Your task to perform on an android device: check google app version Image 0: 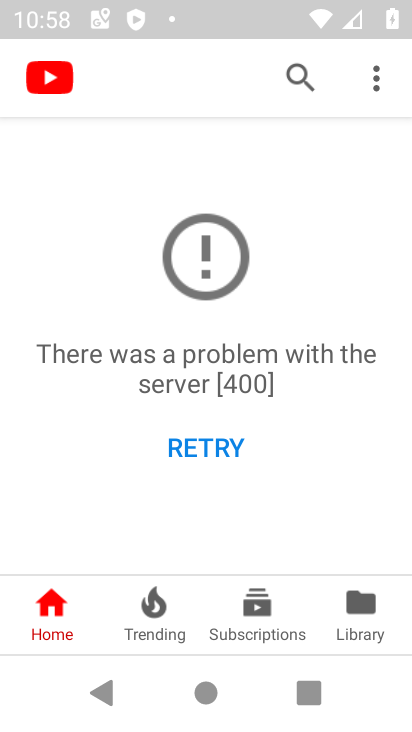
Step 0: press home button
Your task to perform on an android device: check google app version Image 1: 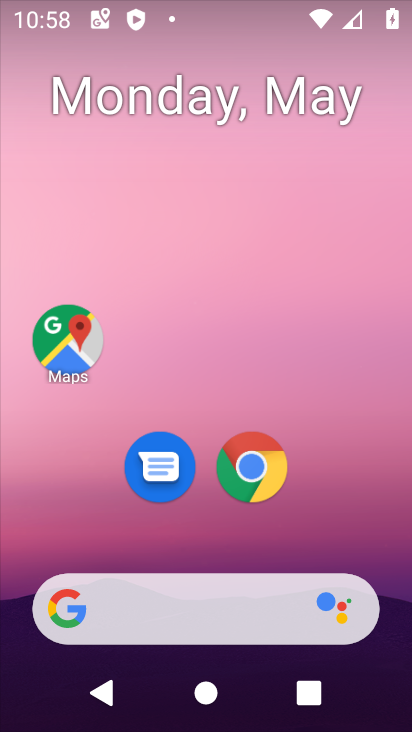
Step 1: drag from (221, 424) to (253, 7)
Your task to perform on an android device: check google app version Image 2: 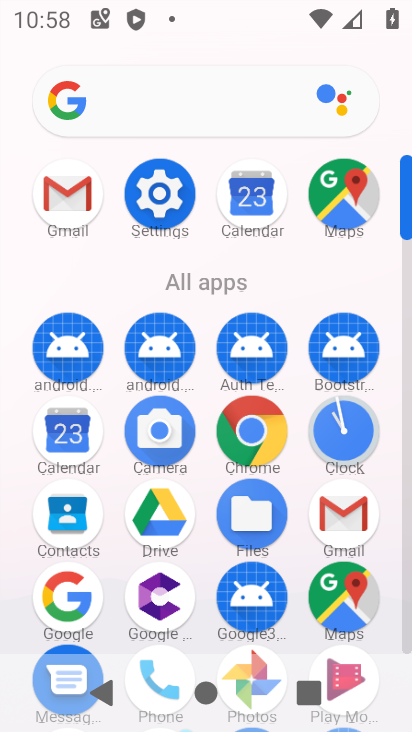
Step 2: click (60, 607)
Your task to perform on an android device: check google app version Image 3: 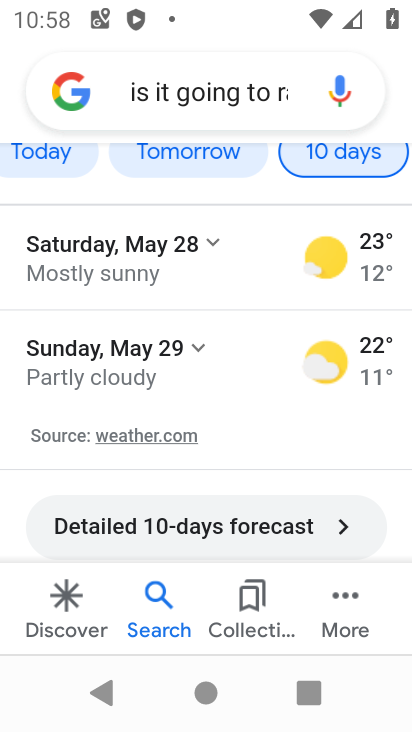
Step 3: click (341, 585)
Your task to perform on an android device: check google app version Image 4: 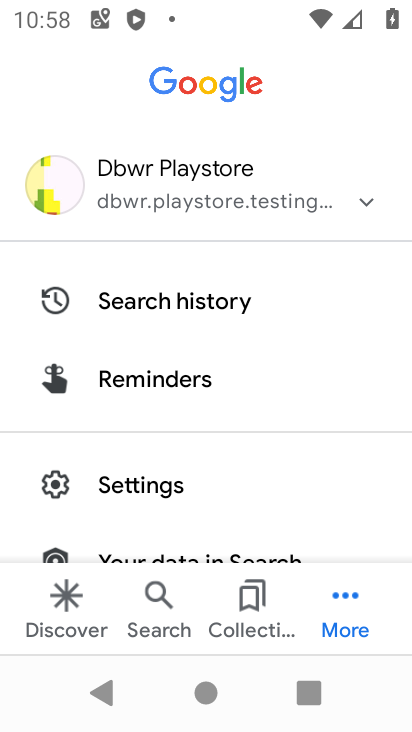
Step 4: click (148, 490)
Your task to perform on an android device: check google app version Image 5: 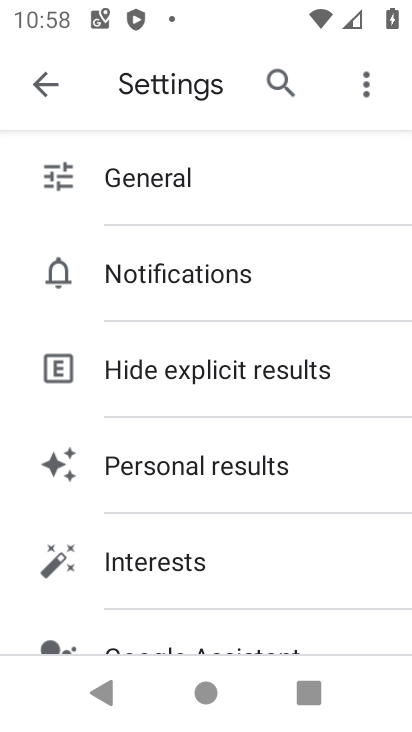
Step 5: drag from (213, 573) to (256, 150)
Your task to perform on an android device: check google app version Image 6: 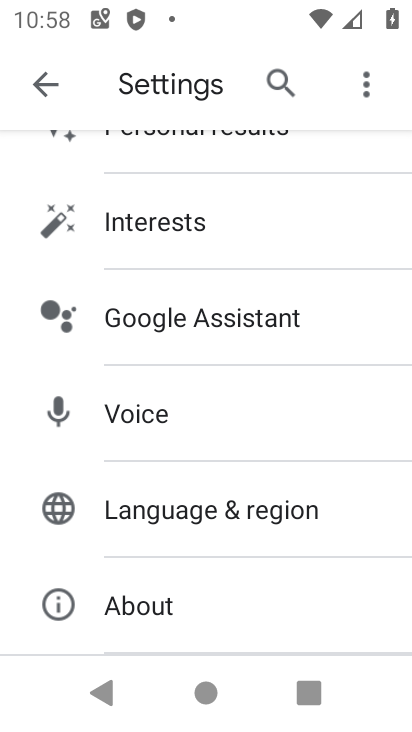
Step 6: click (166, 608)
Your task to perform on an android device: check google app version Image 7: 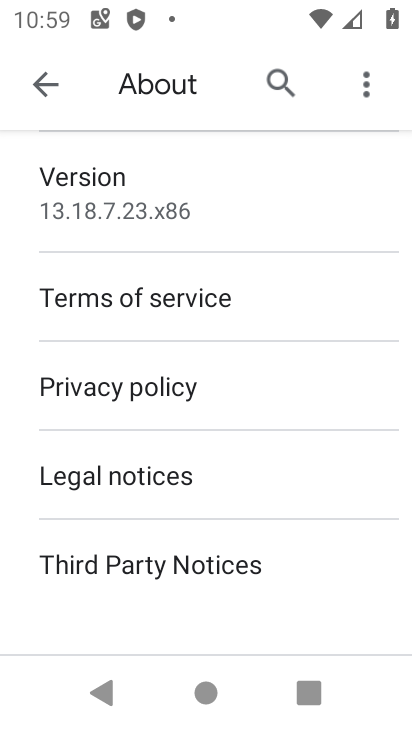
Step 7: click (224, 190)
Your task to perform on an android device: check google app version Image 8: 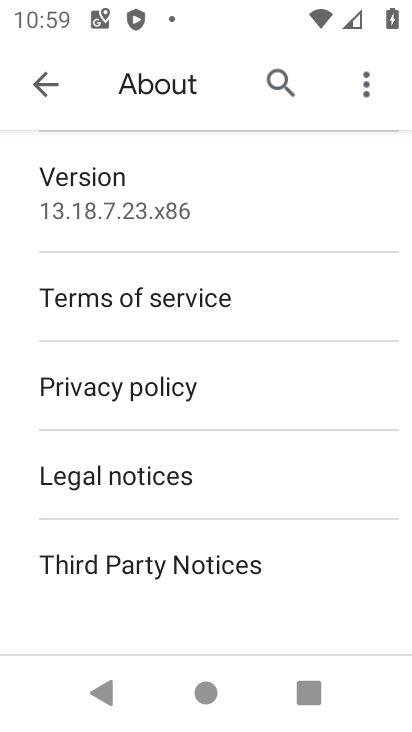
Step 8: task complete